Your task to perform on an android device: Open CNN.com Image 0: 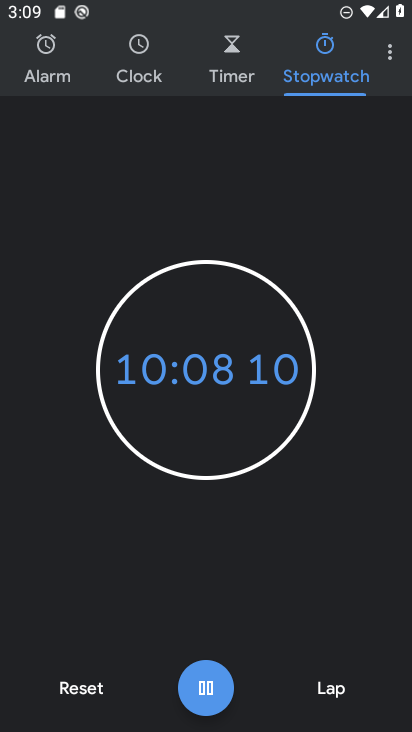
Step 0: press home button
Your task to perform on an android device: Open CNN.com Image 1: 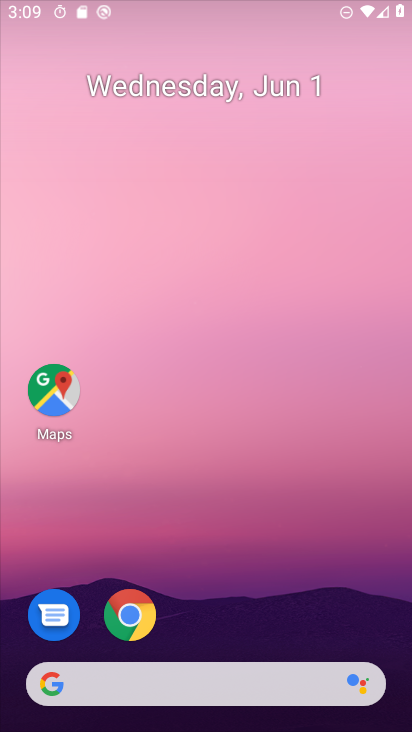
Step 1: drag from (306, 675) to (320, 40)
Your task to perform on an android device: Open CNN.com Image 2: 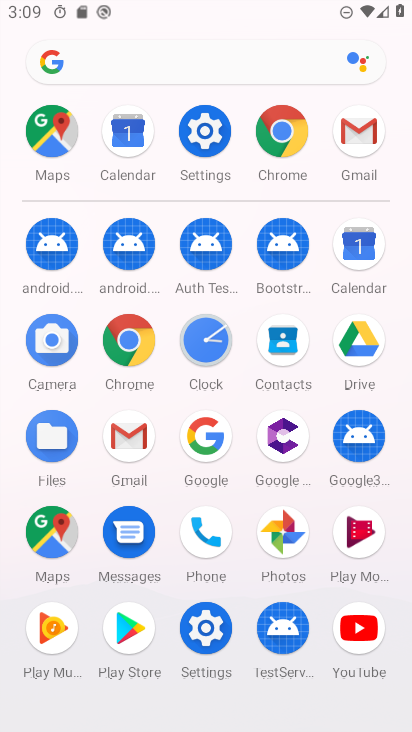
Step 2: click (134, 344)
Your task to perform on an android device: Open CNN.com Image 3: 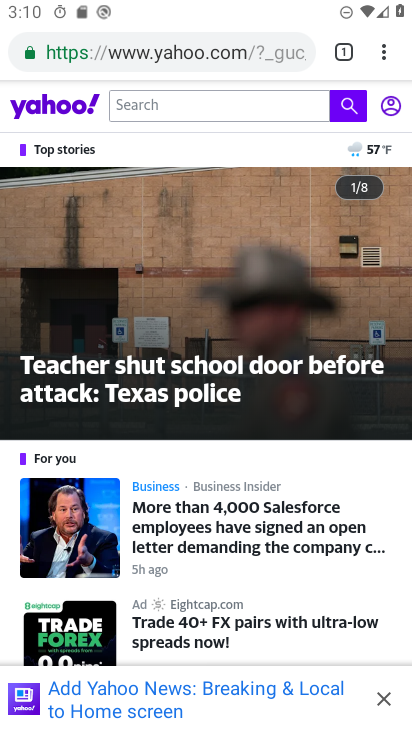
Step 3: click (238, 52)
Your task to perform on an android device: Open CNN.com Image 4: 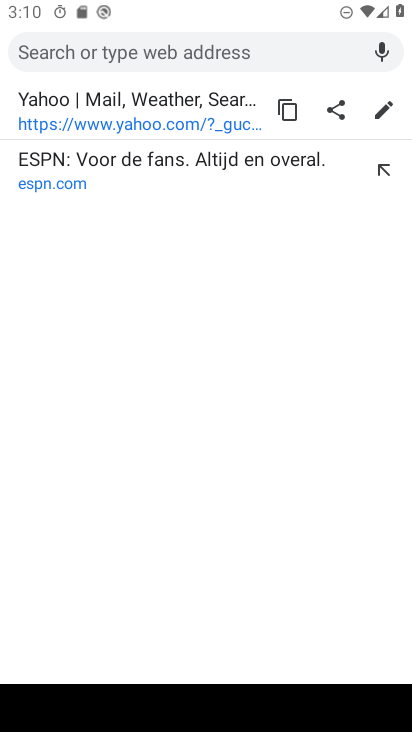
Step 4: type "cnn.com"
Your task to perform on an android device: Open CNN.com Image 5: 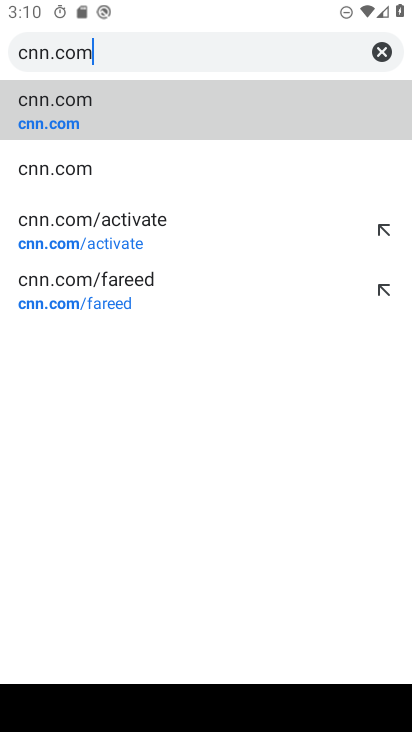
Step 5: click (109, 97)
Your task to perform on an android device: Open CNN.com Image 6: 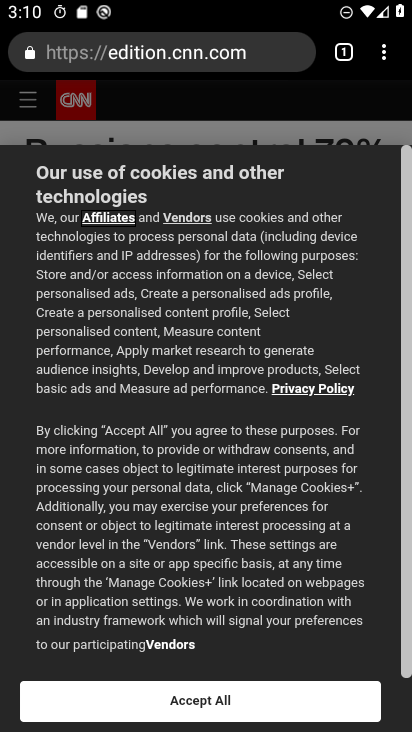
Step 6: task complete